Your task to perform on an android device: Open Yahoo.com Image 0: 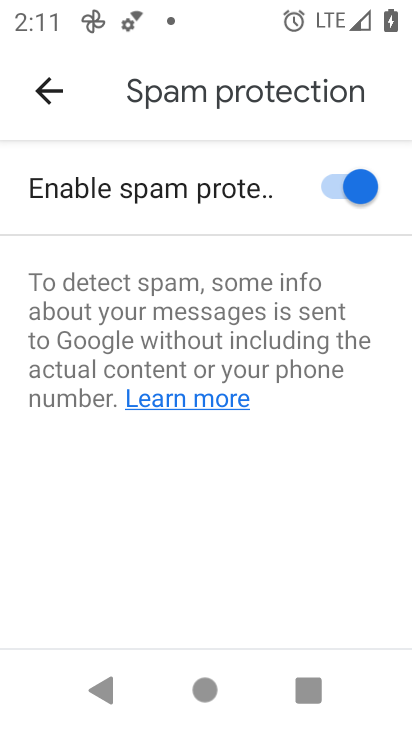
Step 0: press home button
Your task to perform on an android device: Open Yahoo.com Image 1: 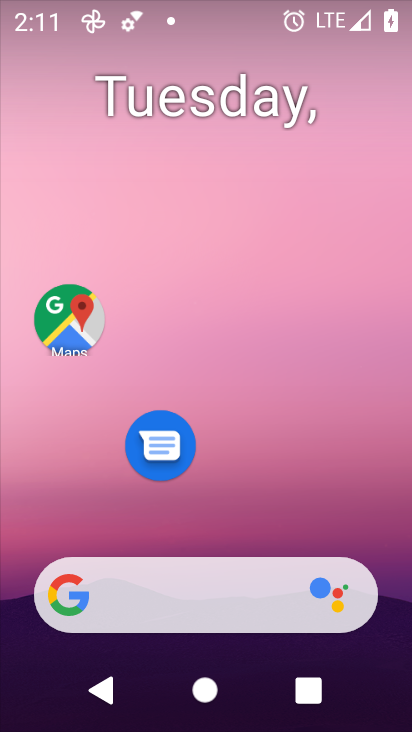
Step 1: drag from (265, 486) to (192, 0)
Your task to perform on an android device: Open Yahoo.com Image 2: 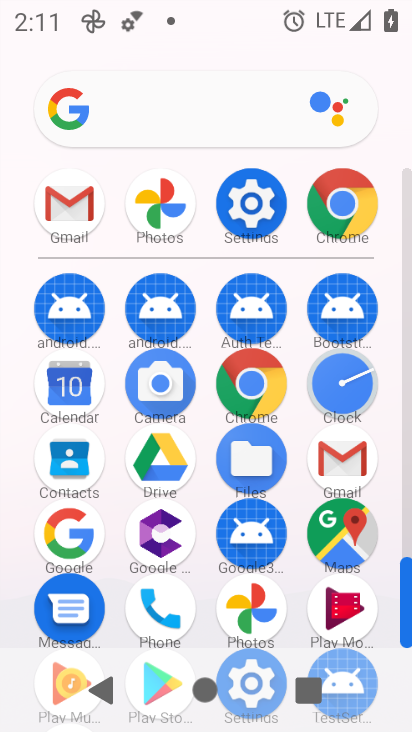
Step 2: click (242, 390)
Your task to perform on an android device: Open Yahoo.com Image 3: 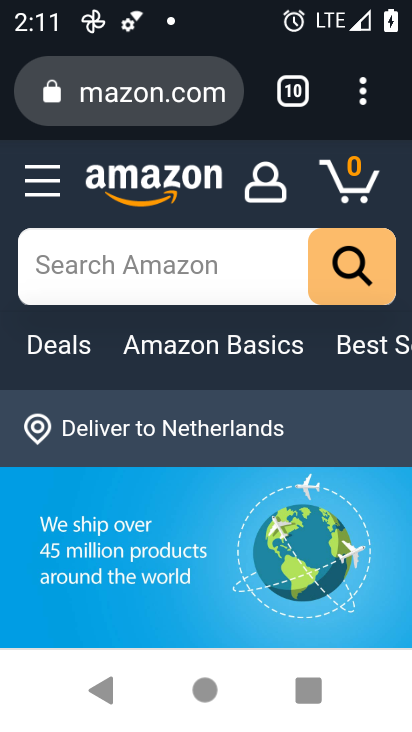
Step 3: click (366, 91)
Your task to perform on an android device: Open Yahoo.com Image 4: 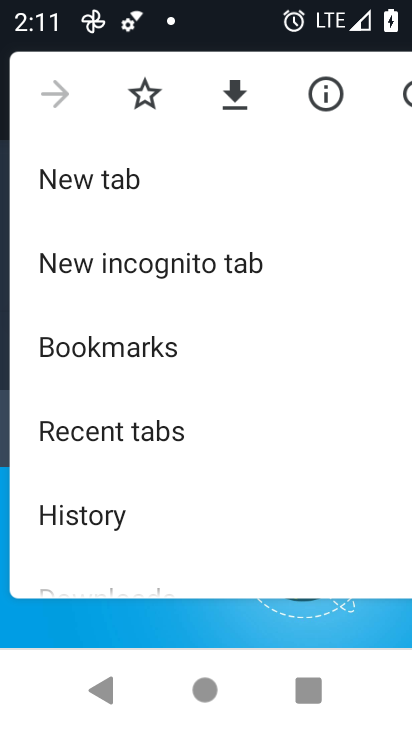
Step 4: click (75, 183)
Your task to perform on an android device: Open Yahoo.com Image 5: 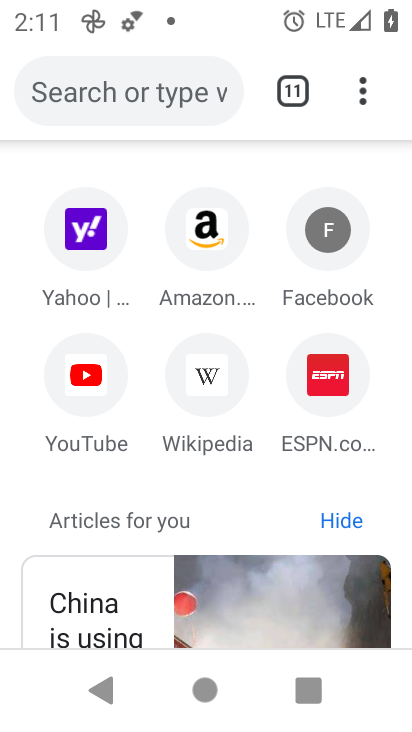
Step 5: click (77, 231)
Your task to perform on an android device: Open Yahoo.com Image 6: 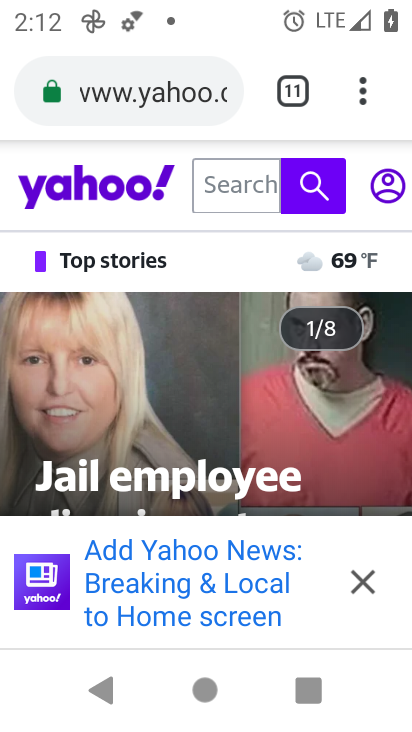
Step 6: task complete